Your task to perform on an android device: Open maps Image 0: 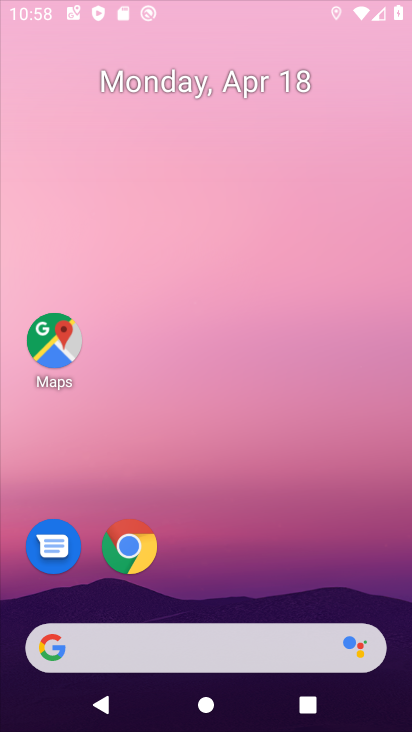
Step 0: click (307, 163)
Your task to perform on an android device: Open maps Image 1: 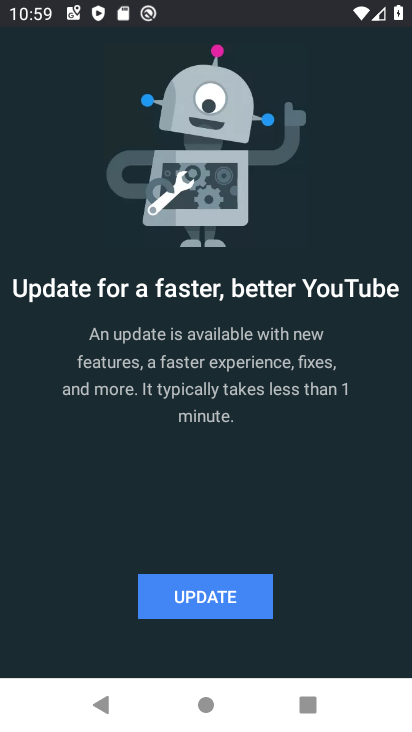
Step 1: press home button
Your task to perform on an android device: Open maps Image 2: 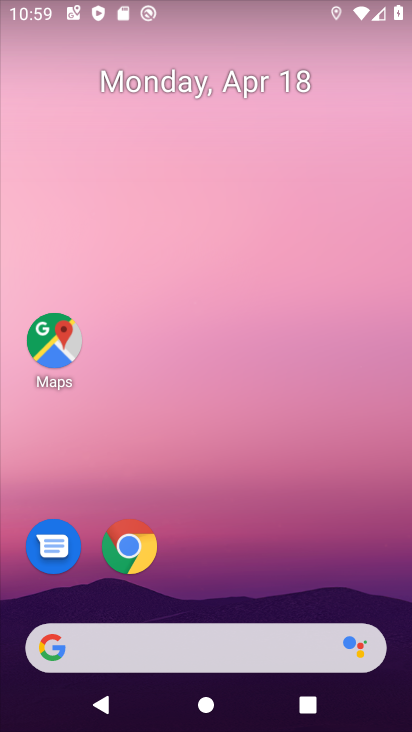
Step 2: click (59, 344)
Your task to perform on an android device: Open maps Image 3: 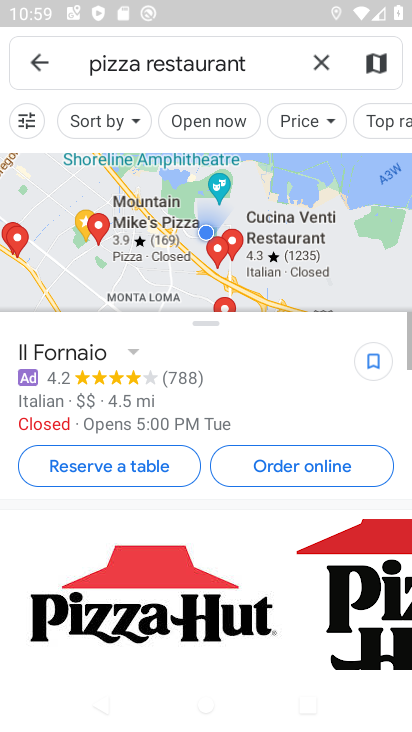
Step 3: task complete